Your task to perform on an android device: Open calendar and show me the fourth week of next month Image 0: 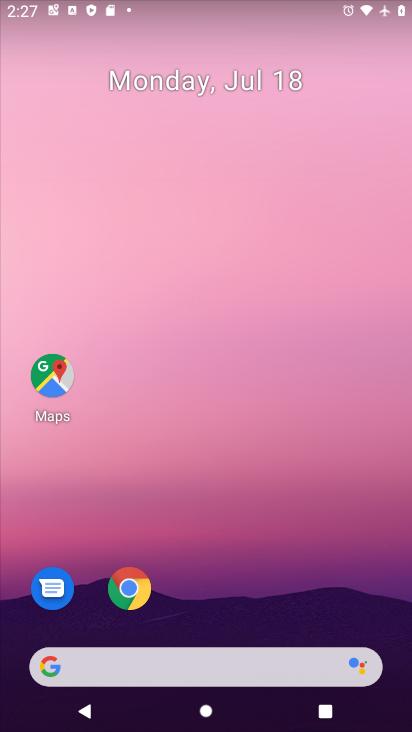
Step 0: drag from (190, 636) to (227, 116)
Your task to perform on an android device: Open calendar and show me the fourth week of next month Image 1: 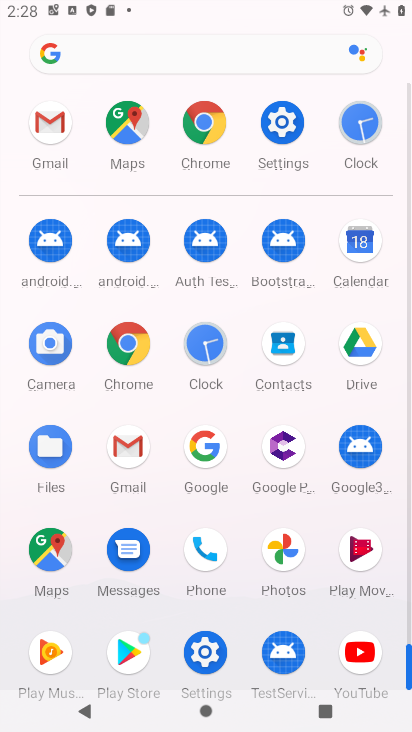
Step 1: click (367, 263)
Your task to perform on an android device: Open calendar and show me the fourth week of next month Image 2: 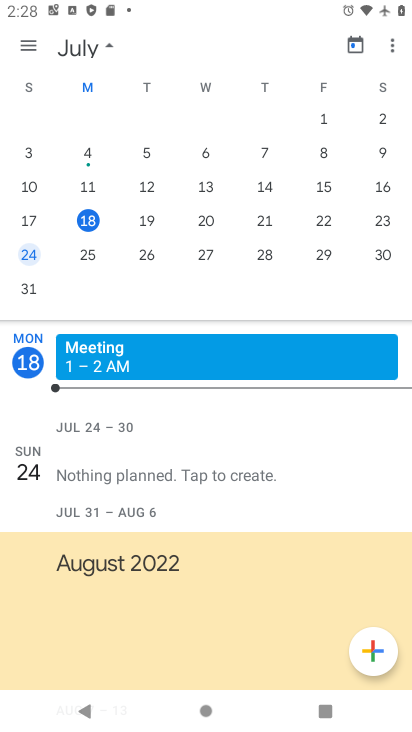
Step 2: drag from (290, 224) to (0, 191)
Your task to perform on an android device: Open calendar and show me the fourth week of next month Image 3: 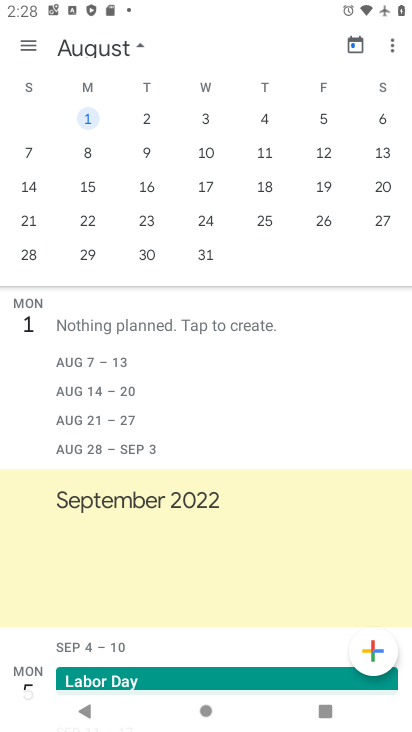
Step 3: click (92, 228)
Your task to perform on an android device: Open calendar and show me the fourth week of next month Image 4: 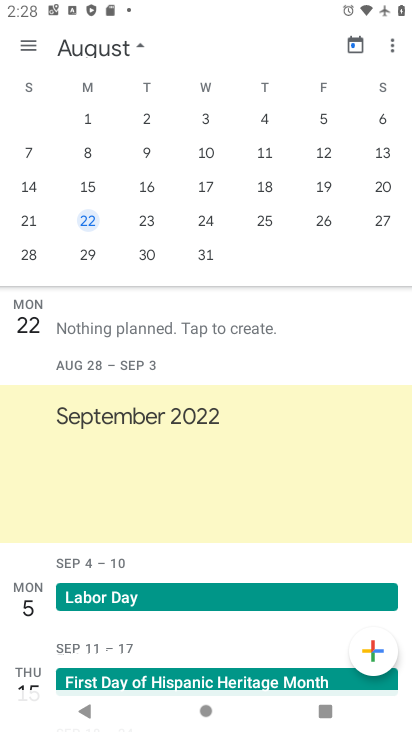
Step 4: task complete